Your task to perform on an android device: change the clock display to analog Image 0: 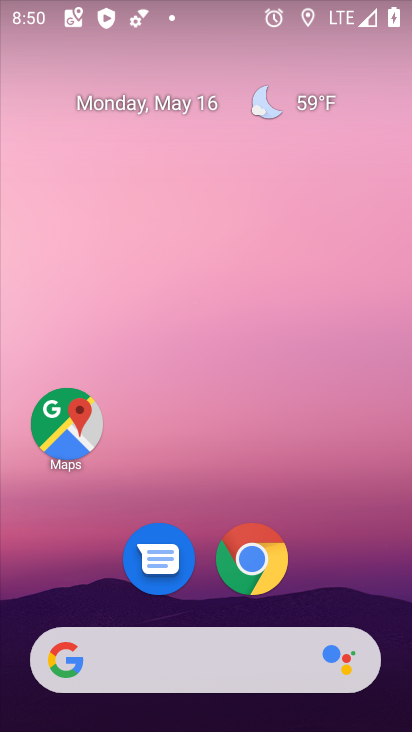
Step 0: press home button
Your task to perform on an android device: change the clock display to analog Image 1: 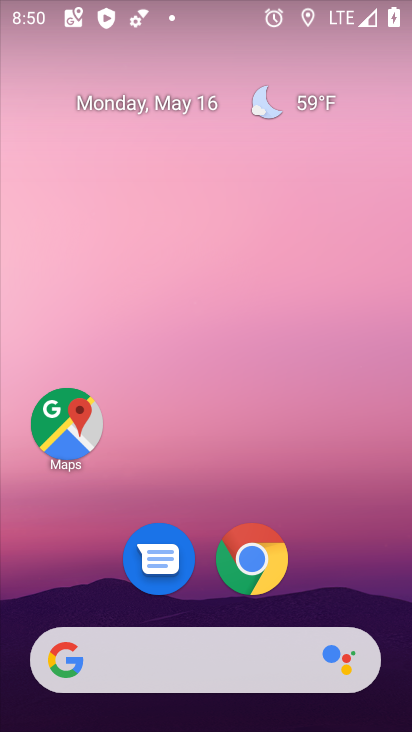
Step 1: drag from (339, 574) to (371, 151)
Your task to perform on an android device: change the clock display to analog Image 2: 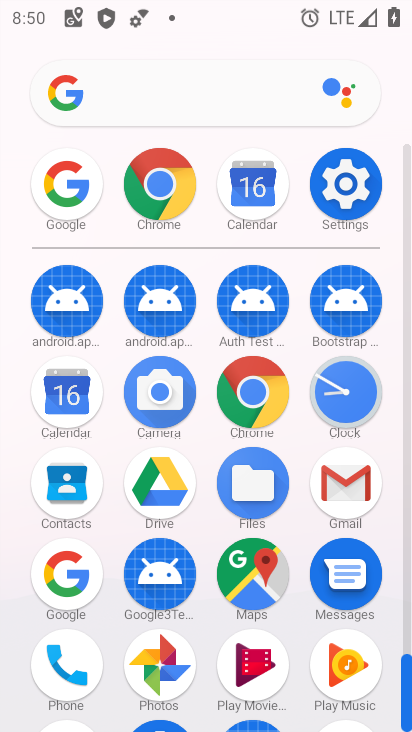
Step 2: click (348, 387)
Your task to perform on an android device: change the clock display to analog Image 3: 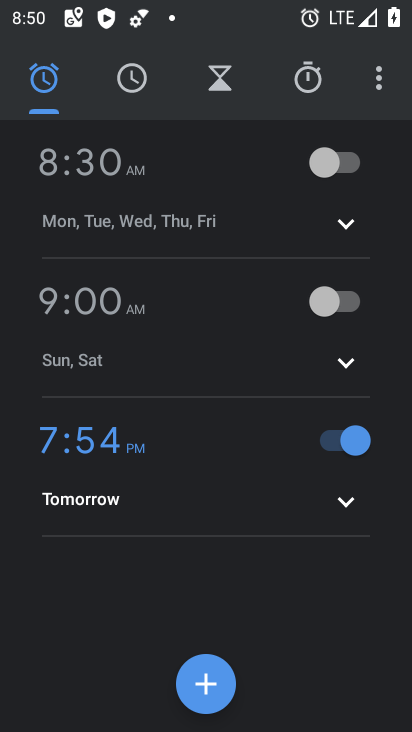
Step 3: drag from (381, 101) to (244, 146)
Your task to perform on an android device: change the clock display to analog Image 4: 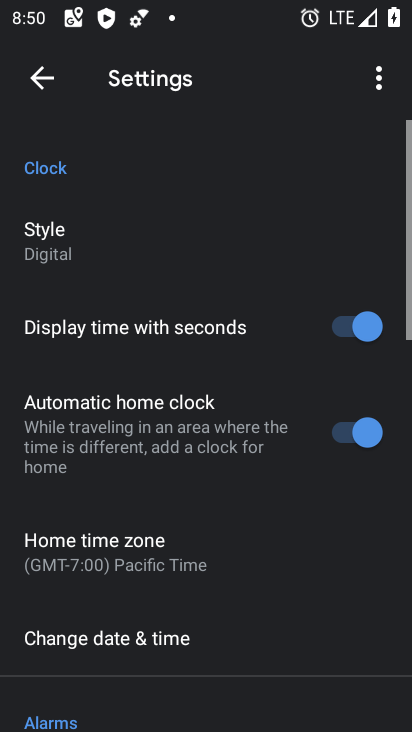
Step 4: click (91, 237)
Your task to perform on an android device: change the clock display to analog Image 5: 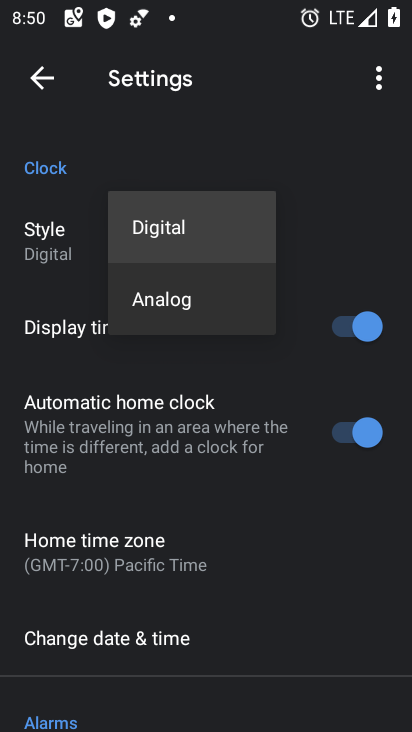
Step 5: click (189, 301)
Your task to perform on an android device: change the clock display to analog Image 6: 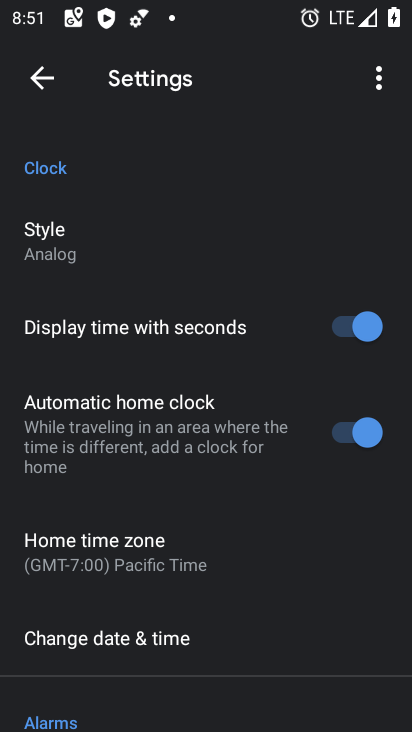
Step 6: task complete